Your task to perform on an android device: Open battery settings Image 0: 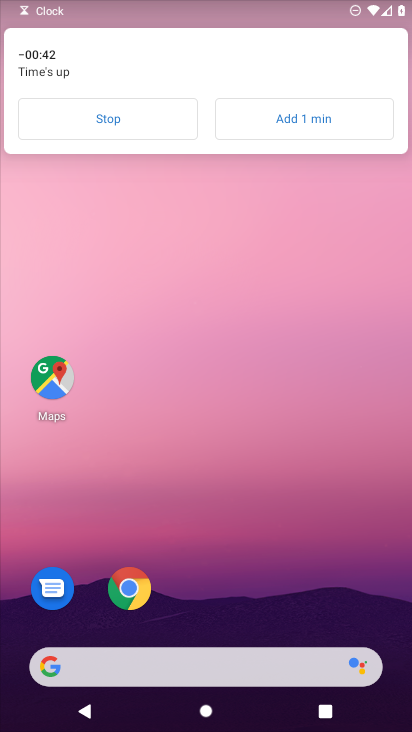
Step 0: click (104, 121)
Your task to perform on an android device: Open battery settings Image 1: 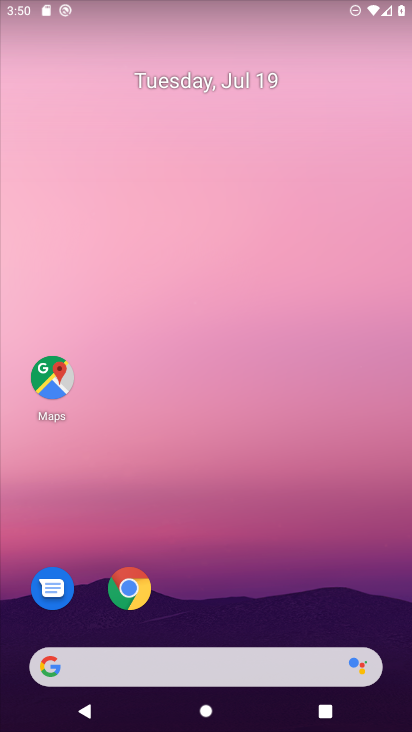
Step 1: click (219, 153)
Your task to perform on an android device: Open battery settings Image 2: 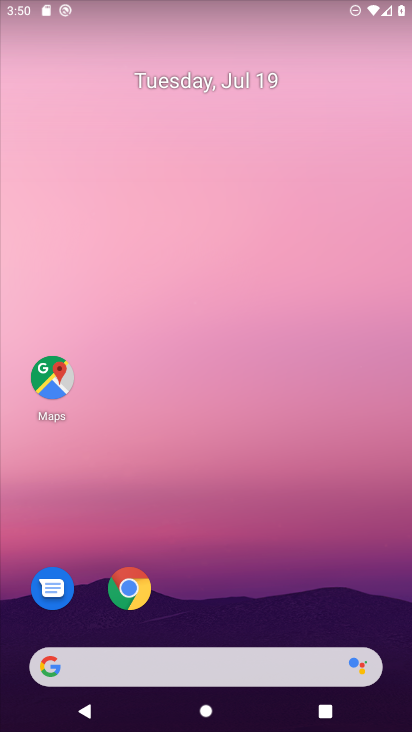
Step 2: drag from (187, 627) to (188, 219)
Your task to perform on an android device: Open battery settings Image 3: 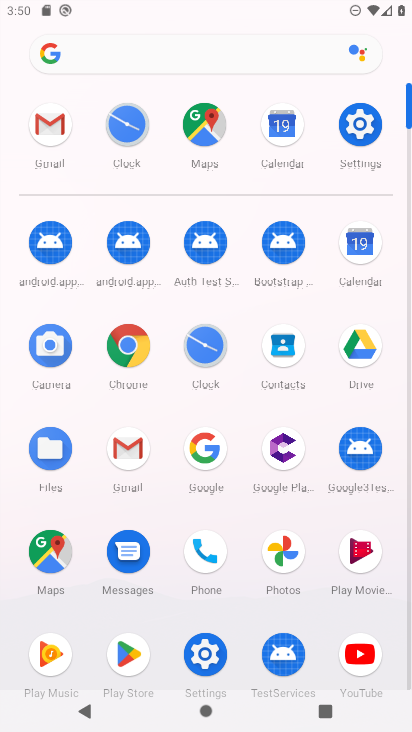
Step 3: click (364, 125)
Your task to perform on an android device: Open battery settings Image 4: 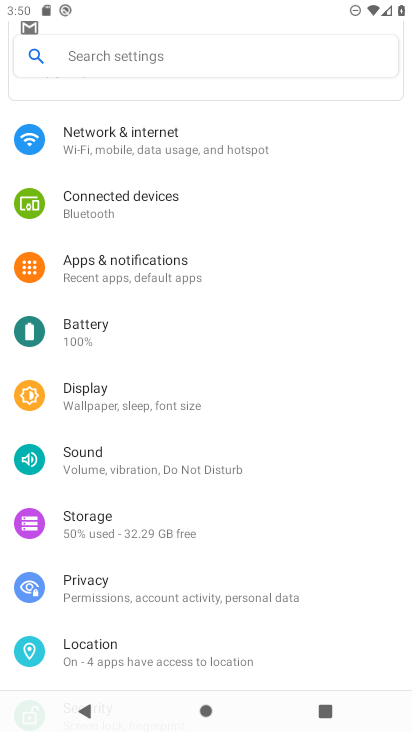
Step 4: click (87, 338)
Your task to perform on an android device: Open battery settings Image 5: 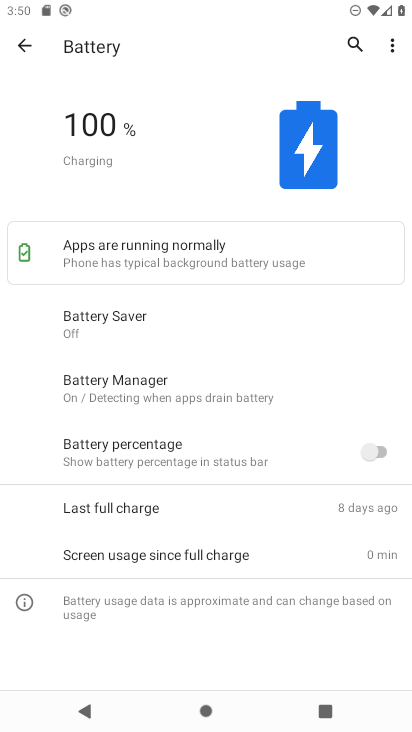
Step 5: task complete